Your task to perform on an android device: Search for Italian restaurants on Maps Image 0: 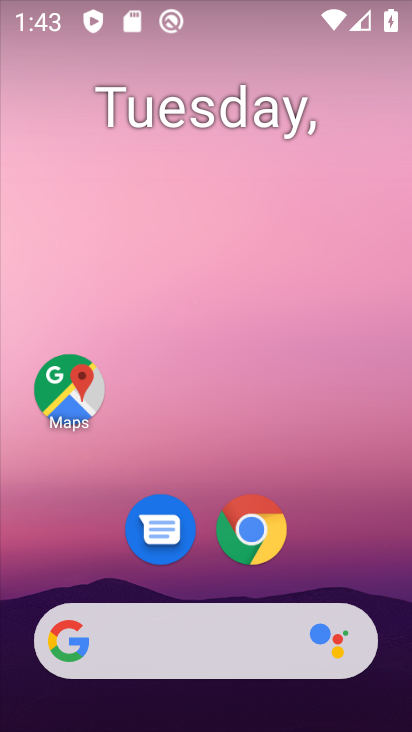
Step 0: drag from (397, 610) to (184, 0)
Your task to perform on an android device: Search for Italian restaurants on Maps Image 1: 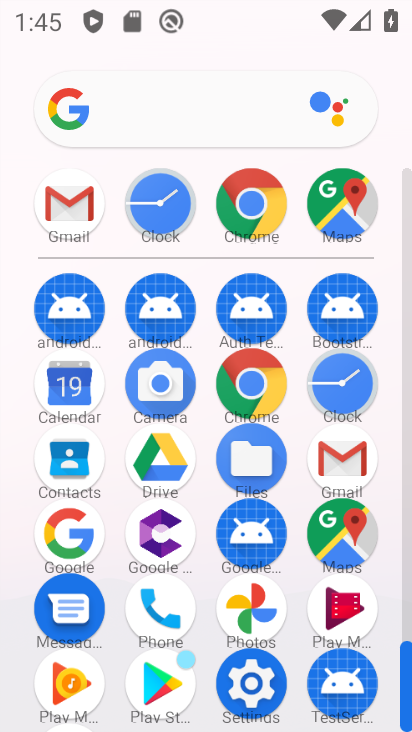
Step 1: click (353, 186)
Your task to perform on an android device: Search for Italian restaurants on Maps Image 2: 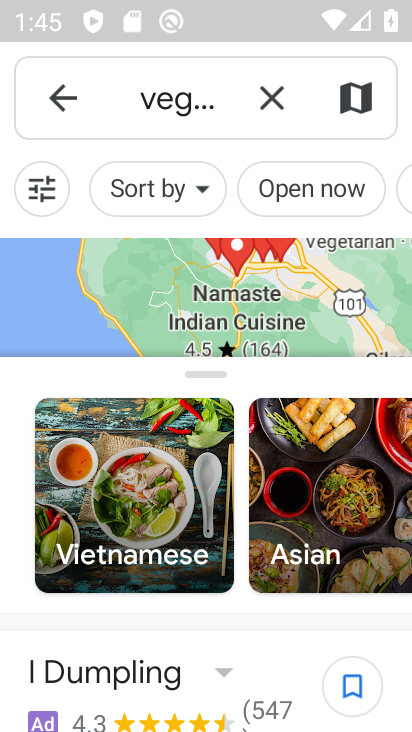
Step 2: click (277, 101)
Your task to perform on an android device: Search for Italian restaurants on Maps Image 3: 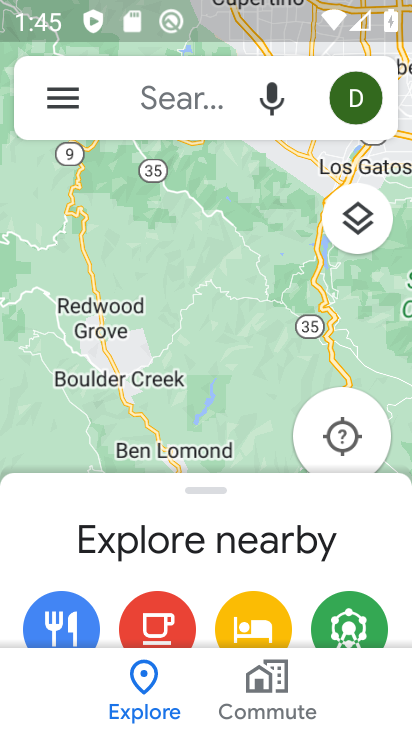
Step 3: click (181, 95)
Your task to perform on an android device: Search for Italian restaurants on Maps Image 4: 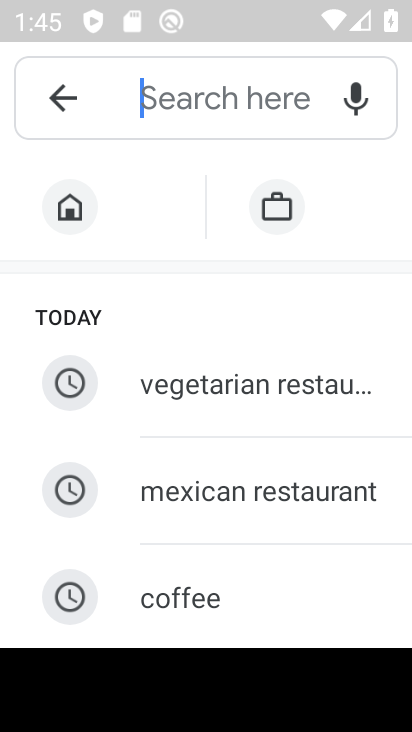
Step 4: drag from (162, 569) to (255, 170)
Your task to perform on an android device: Search for Italian restaurants on Maps Image 5: 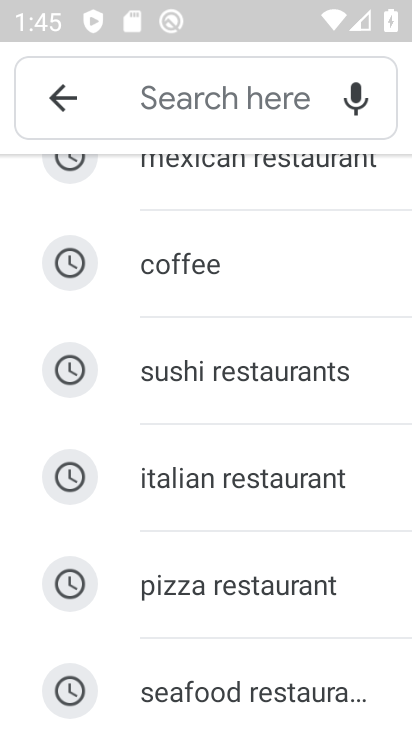
Step 5: drag from (187, 644) to (252, 362)
Your task to perform on an android device: Search for Italian restaurants on Maps Image 6: 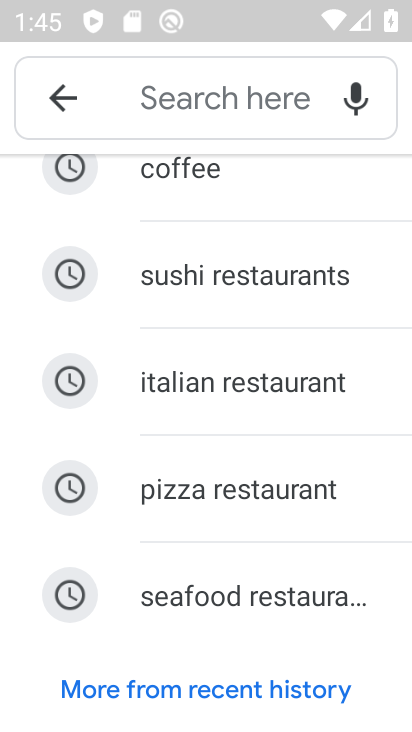
Step 6: click (186, 376)
Your task to perform on an android device: Search for Italian restaurants on Maps Image 7: 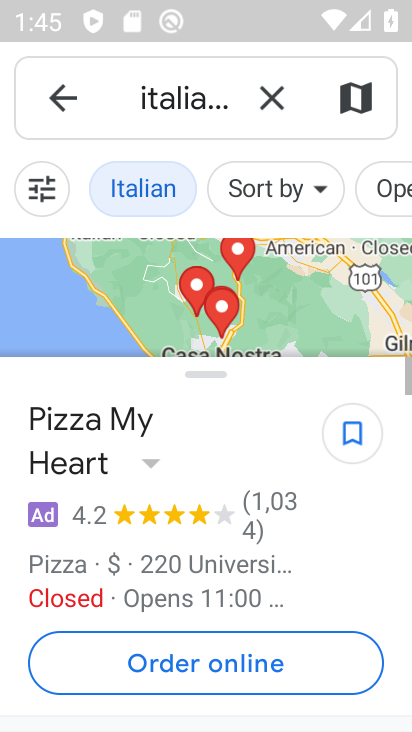
Step 7: task complete